Your task to perform on an android device: Open my contact list Image 0: 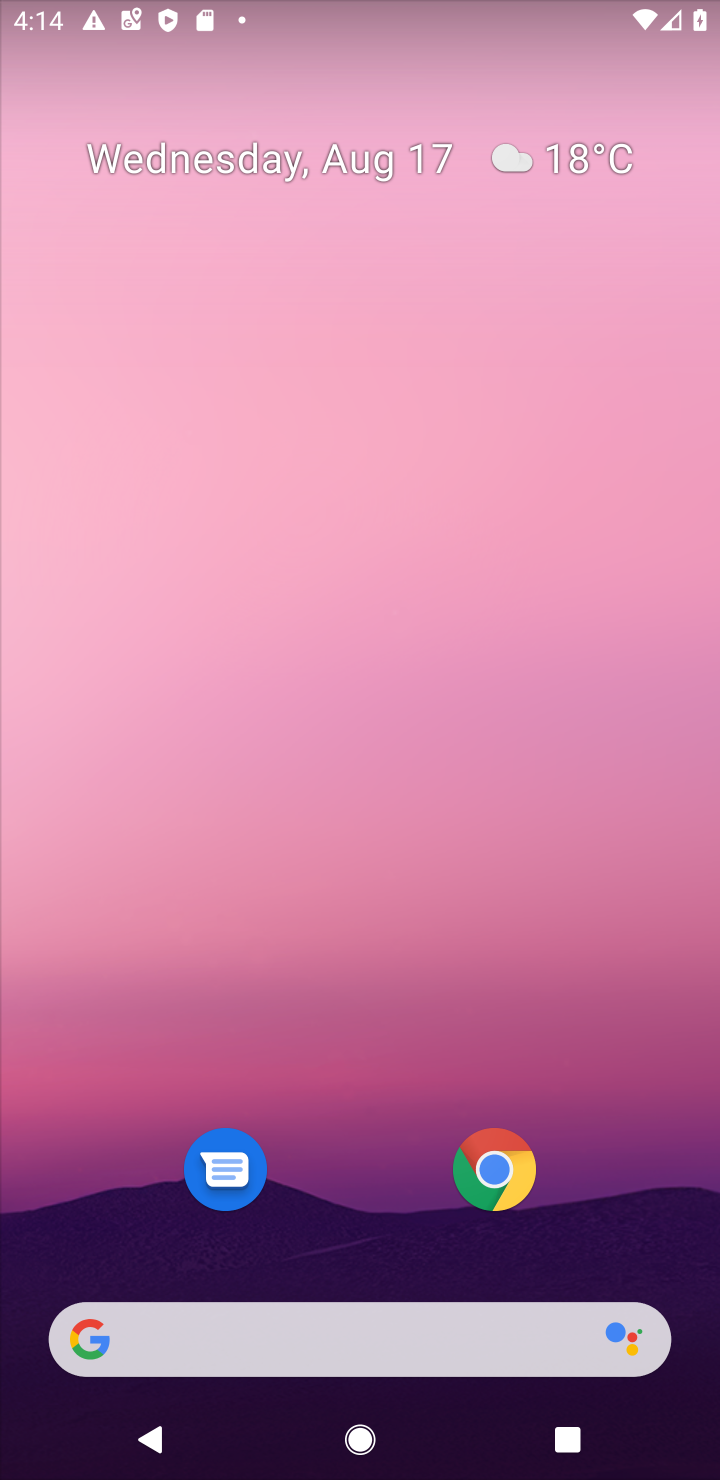
Step 0: drag from (412, 1052) to (440, 344)
Your task to perform on an android device: Open my contact list Image 1: 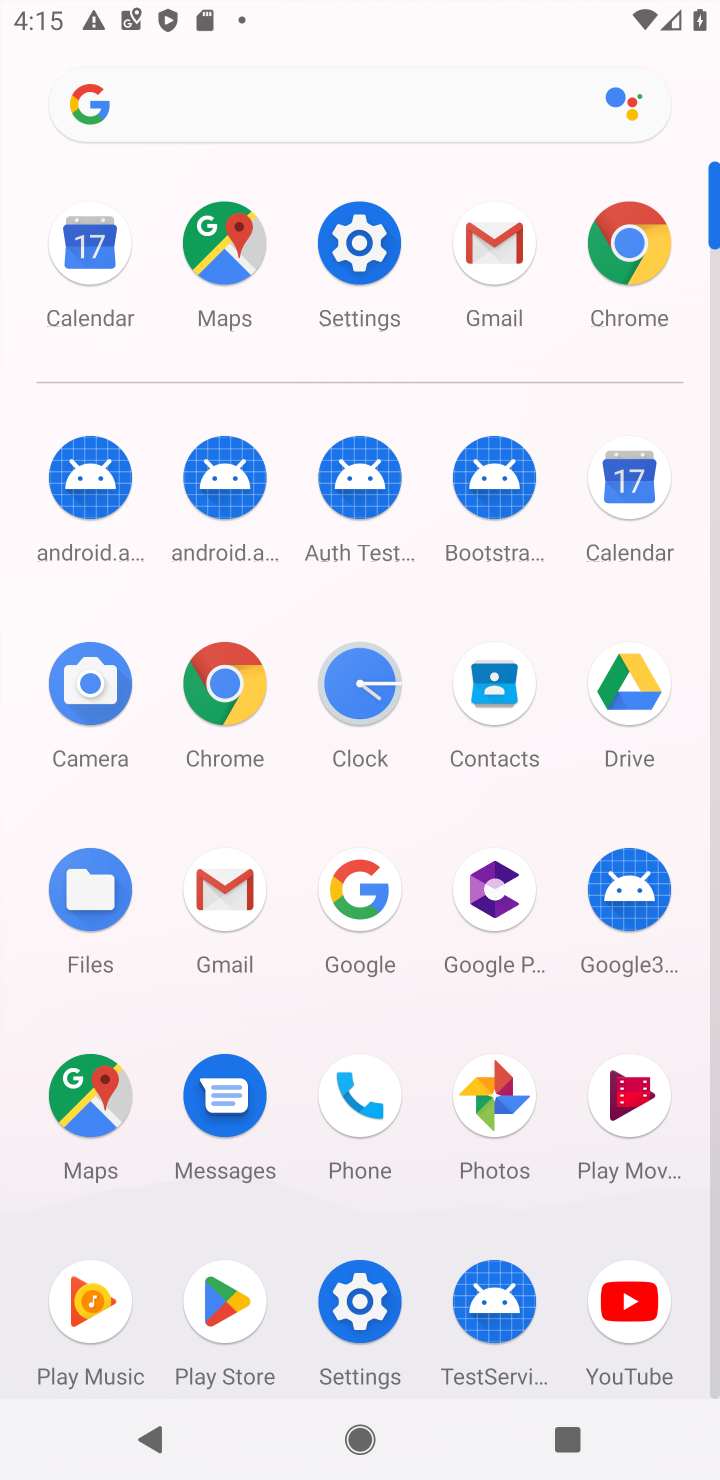
Step 1: click (340, 1072)
Your task to perform on an android device: Open my contact list Image 2: 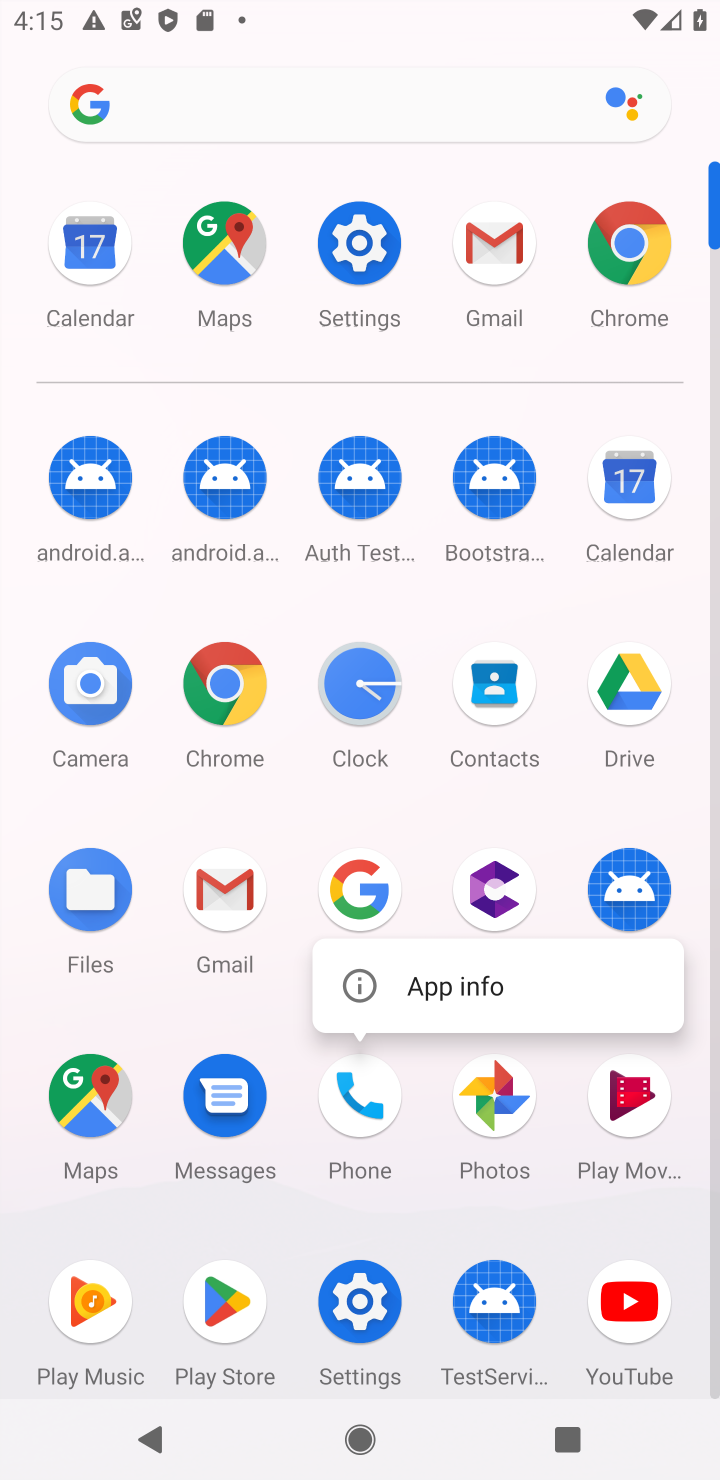
Step 2: click (480, 687)
Your task to perform on an android device: Open my contact list Image 3: 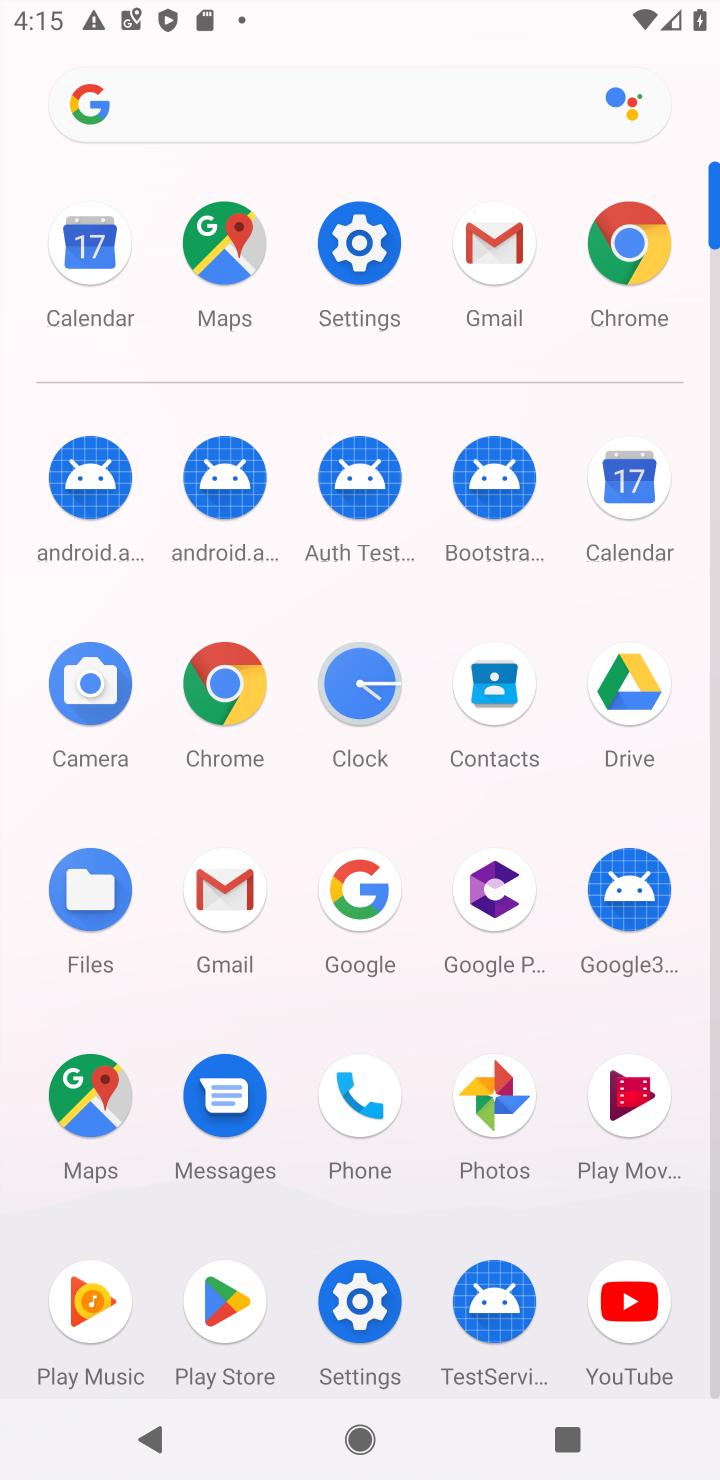
Step 3: click (500, 687)
Your task to perform on an android device: Open my contact list Image 4: 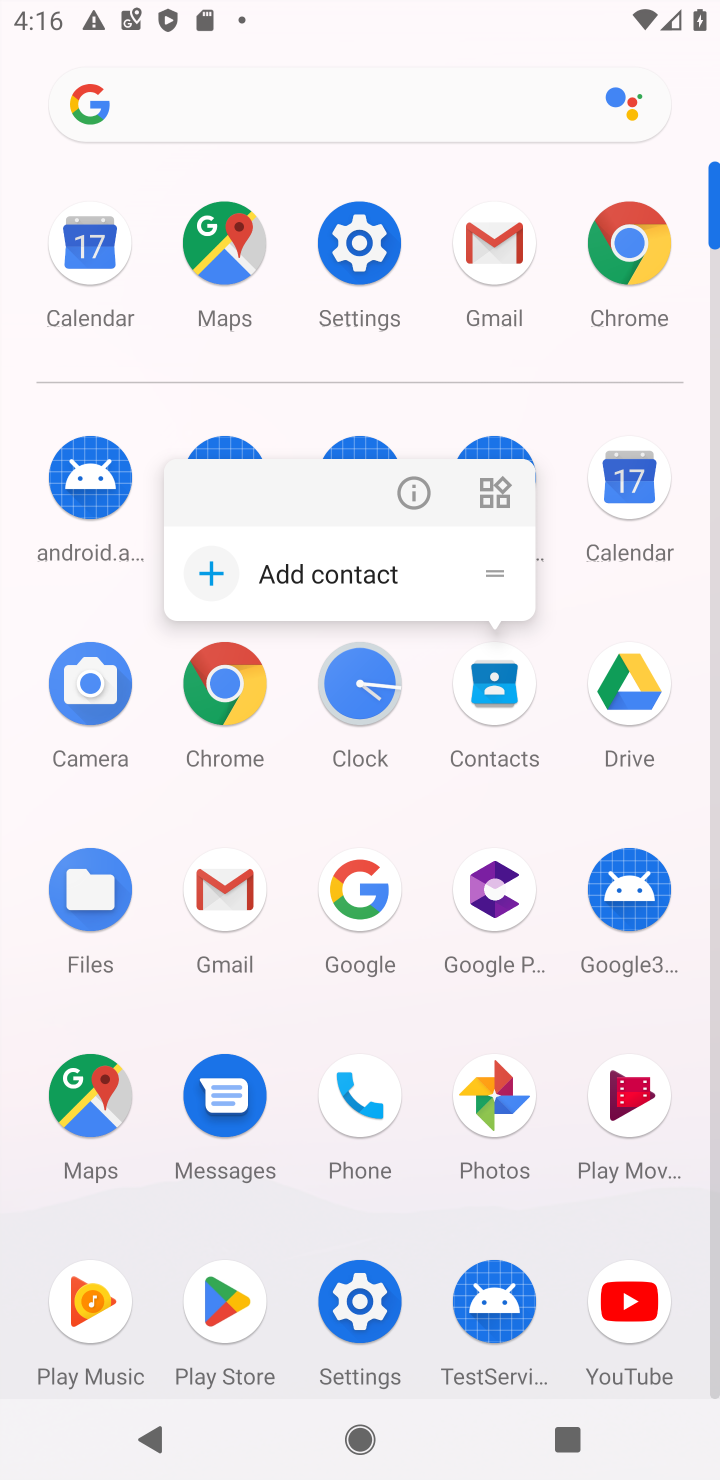
Step 4: click (518, 682)
Your task to perform on an android device: Open my contact list Image 5: 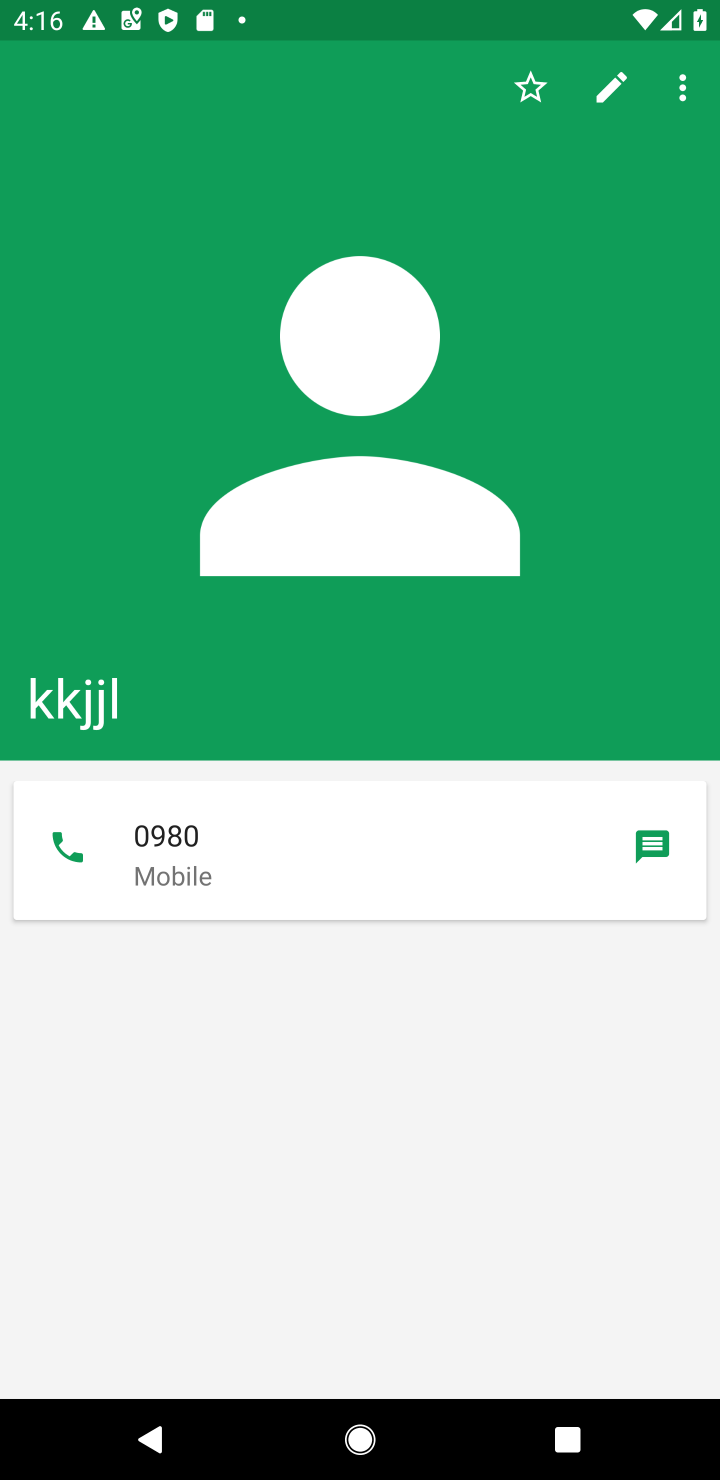
Step 5: click (499, 695)
Your task to perform on an android device: Open my contact list Image 6: 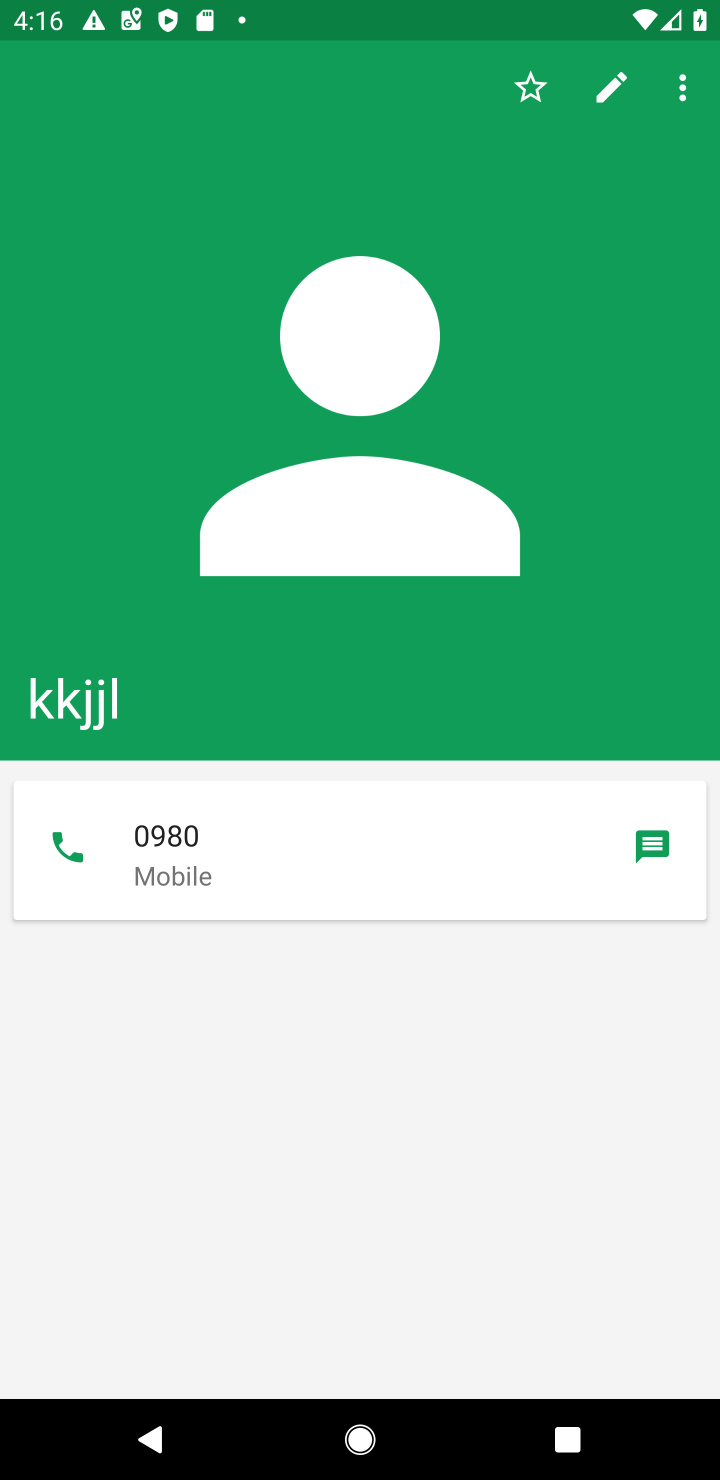
Step 6: task complete